Your task to perform on an android device: Turn on the flashlight Image 0: 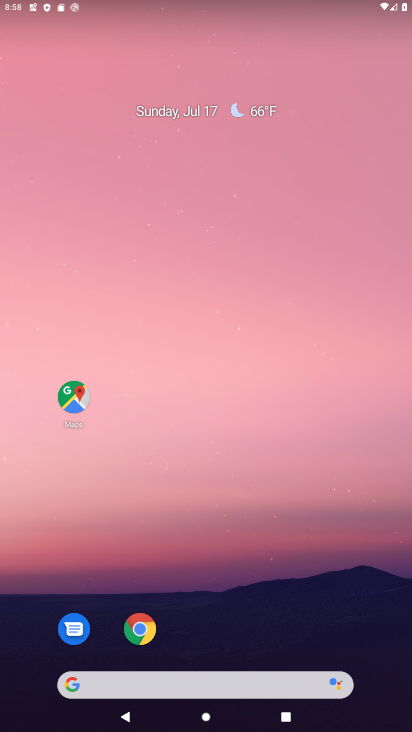
Step 0: press home button
Your task to perform on an android device: Turn on the flashlight Image 1: 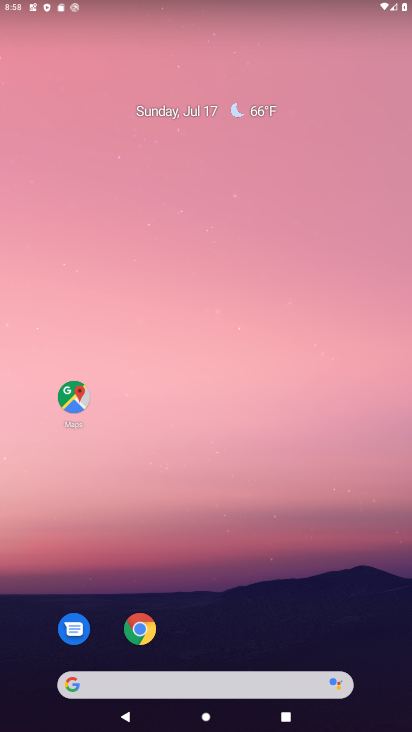
Step 1: drag from (211, 648) to (312, 8)
Your task to perform on an android device: Turn on the flashlight Image 2: 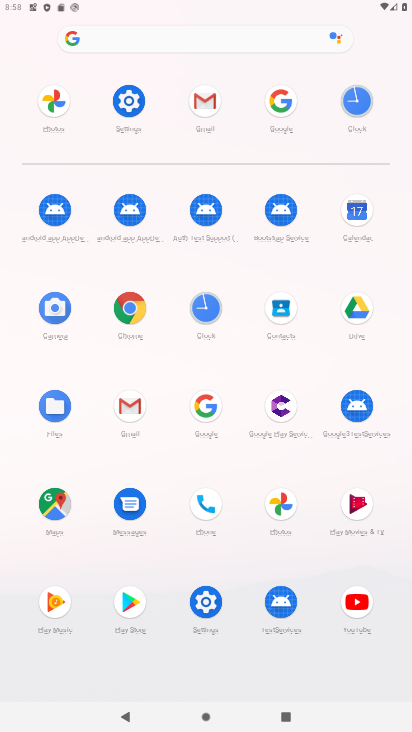
Step 2: click (126, 92)
Your task to perform on an android device: Turn on the flashlight Image 3: 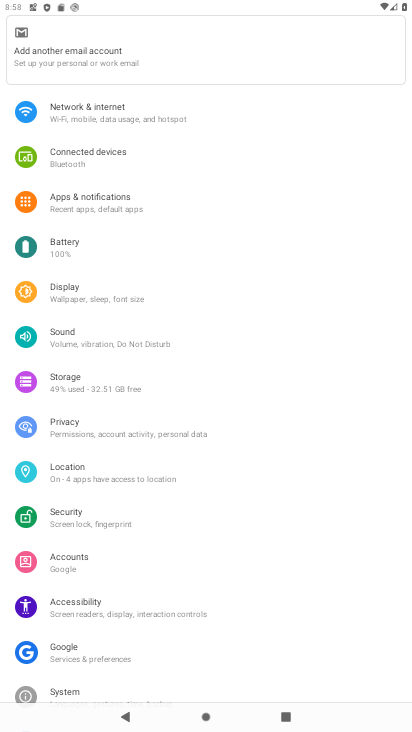
Step 3: drag from (124, 134) to (166, 440)
Your task to perform on an android device: Turn on the flashlight Image 4: 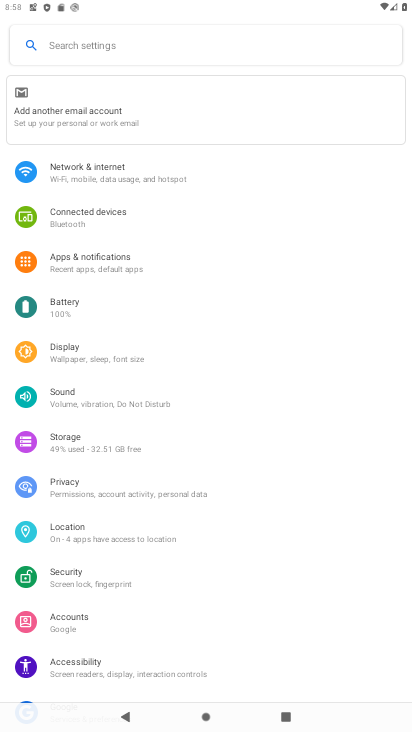
Step 4: click (76, 41)
Your task to perform on an android device: Turn on the flashlight Image 5: 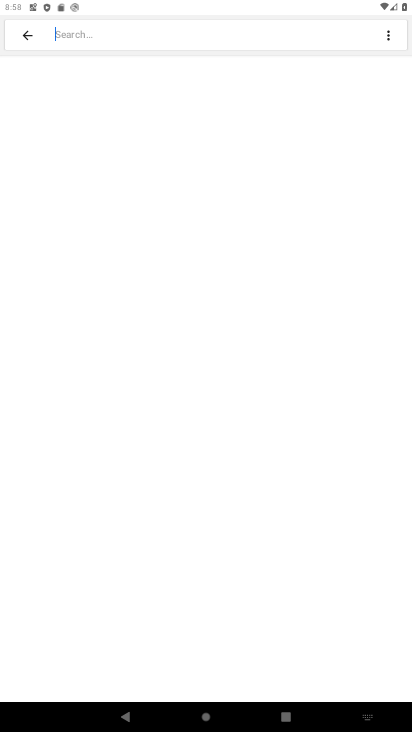
Step 5: type "flashlight"
Your task to perform on an android device: Turn on the flashlight Image 6: 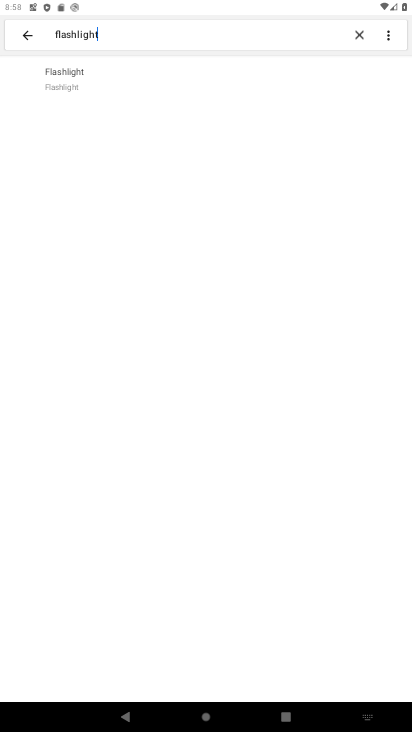
Step 6: click (83, 76)
Your task to perform on an android device: Turn on the flashlight Image 7: 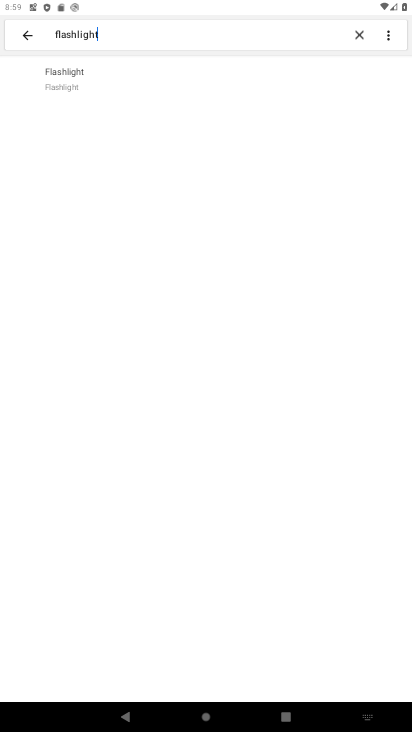
Step 7: task complete